Your task to perform on an android device: check google app version Image 0: 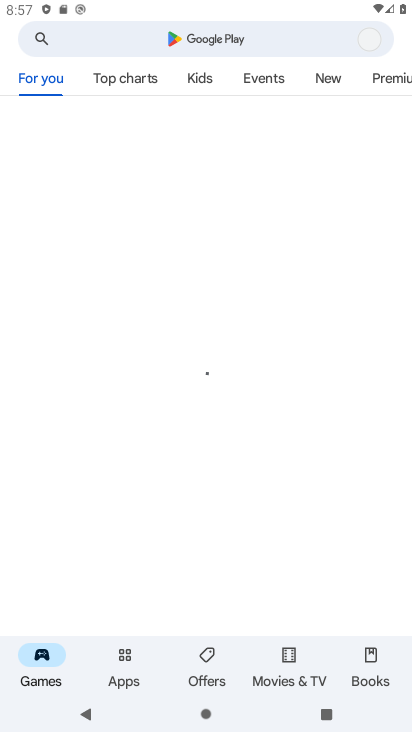
Step 0: press home button
Your task to perform on an android device: check google app version Image 1: 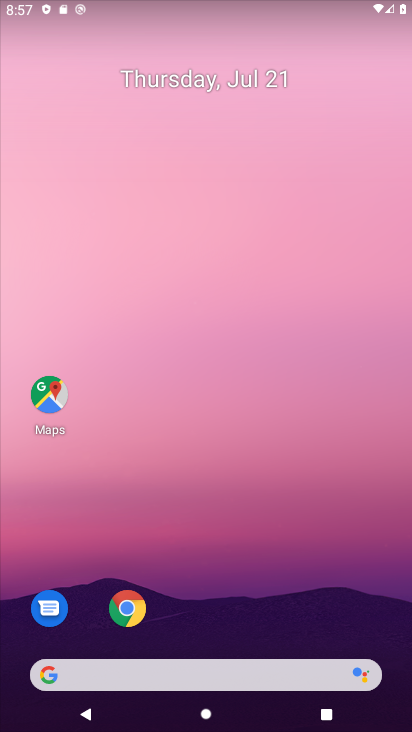
Step 1: drag from (287, 625) to (229, 66)
Your task to perform on an android device: check google app version Image 2: 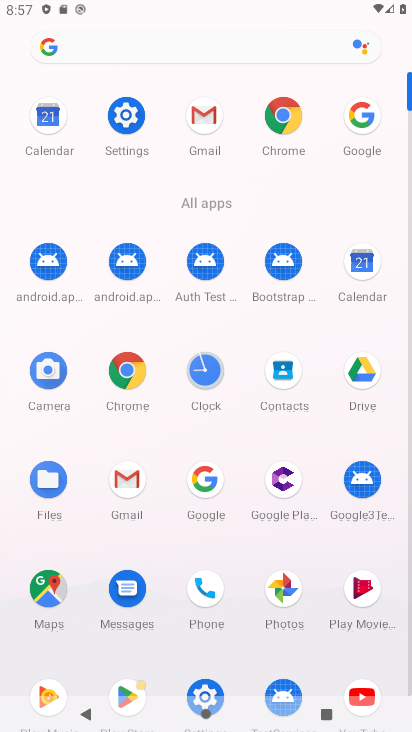
Step 2: click (274, 120)
Your task to perform on an android device: check google app version Image 3: 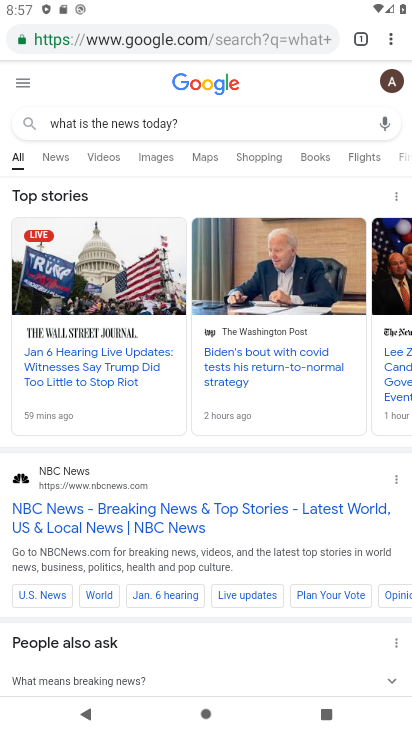
Step 3: click (390, 45)
Your task to perform on an android device: check google app version Image 4: 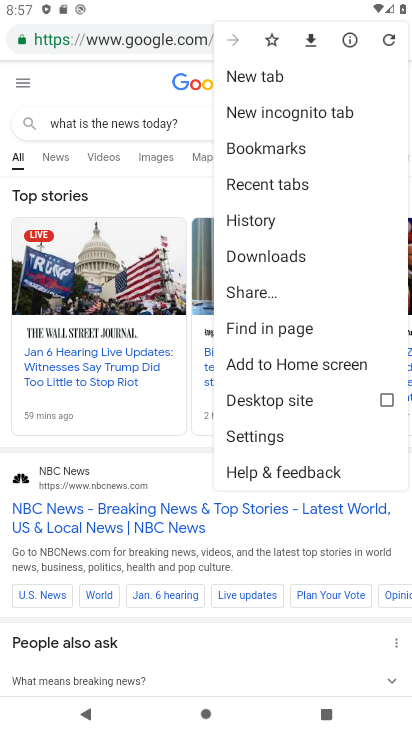
Step 4: click (271, 469)
Your task to perform on an android device: check google app version Image 5: 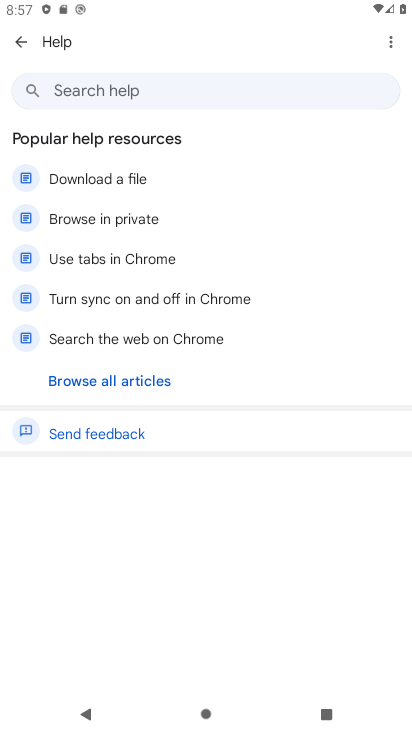
Step 5: click (393, 42)
Your task to perform on an android device: check google app version Image 6: 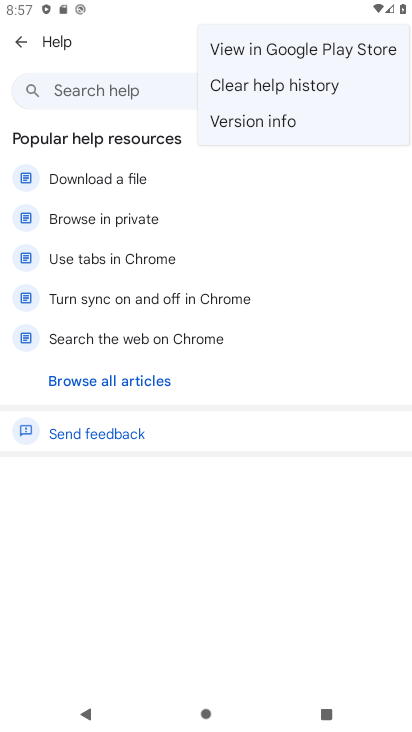
Step 6: click (341, 115)
Your task to perform on an android device: check google app version Image 7: 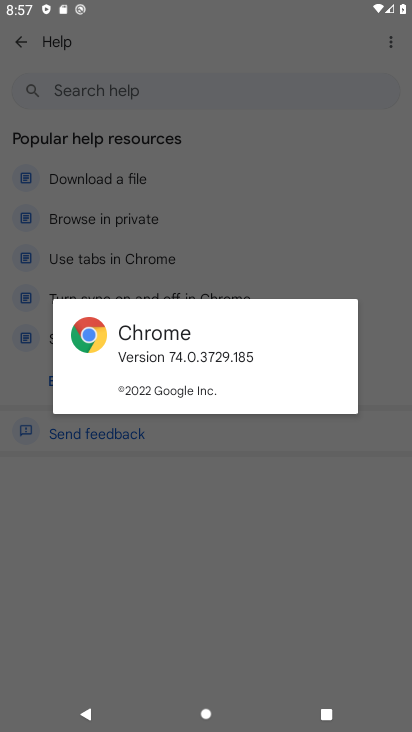
Step 7: task complete